Your task to perform on an android device: Go to settings Image 0: 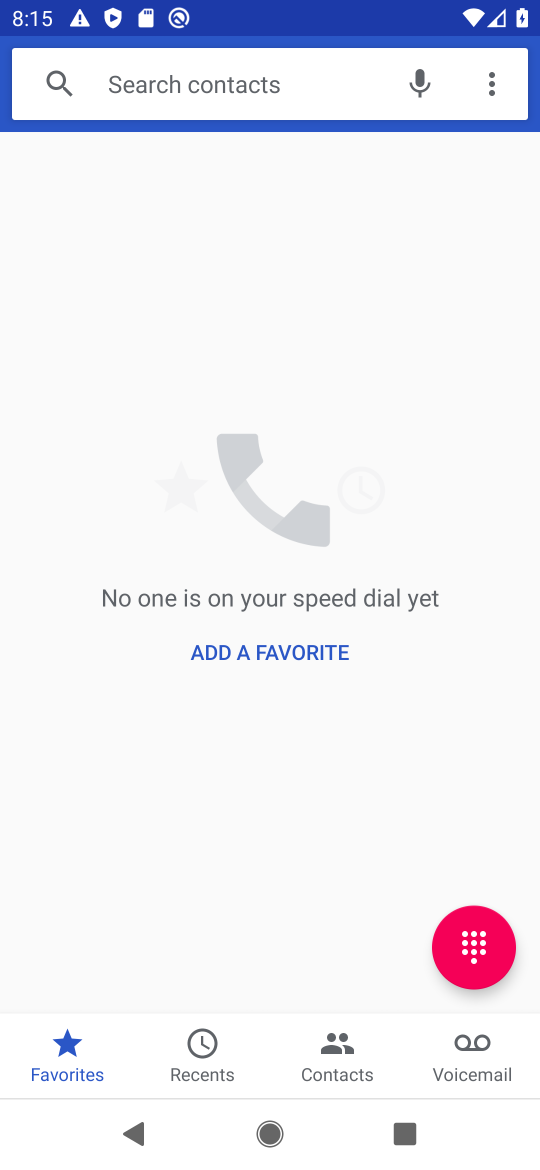
Step 0: press home button
Your task to perform on an android device: Go to settings Image 1: 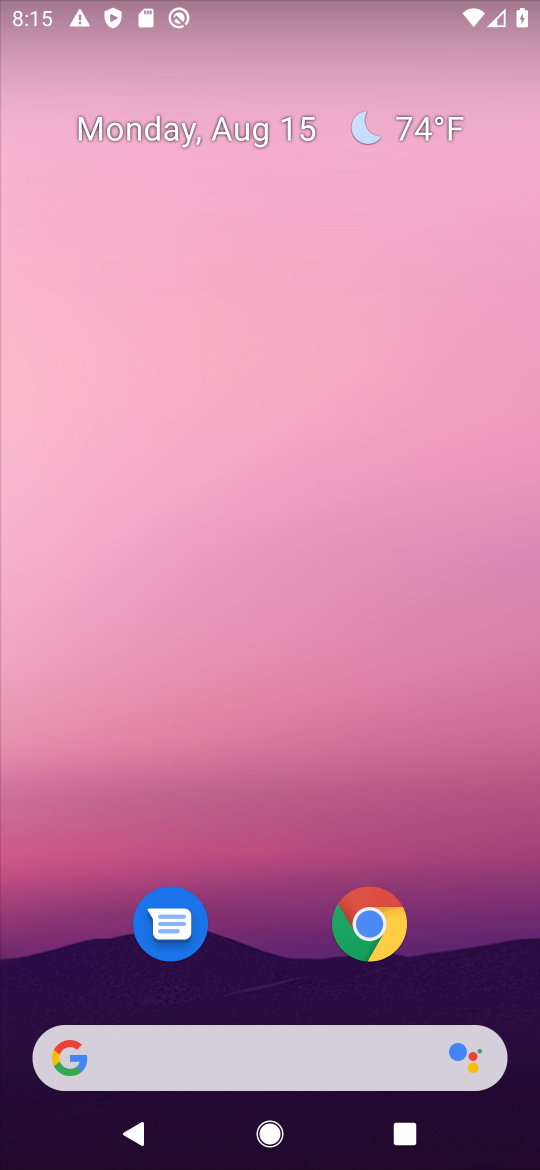
Step 1: drag from (494, 1001) to (451, 321)
Your task to perform on an android device: Go to settings Image 2: 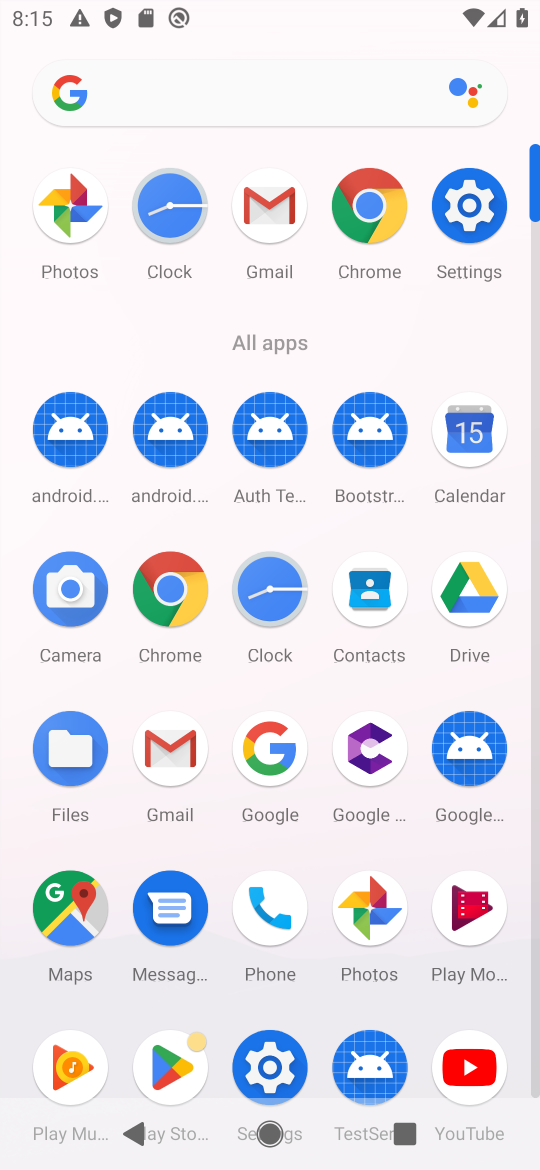
Step 2: click (266, 1066)
Your task to perform on an android device: Go to settings Image 3: 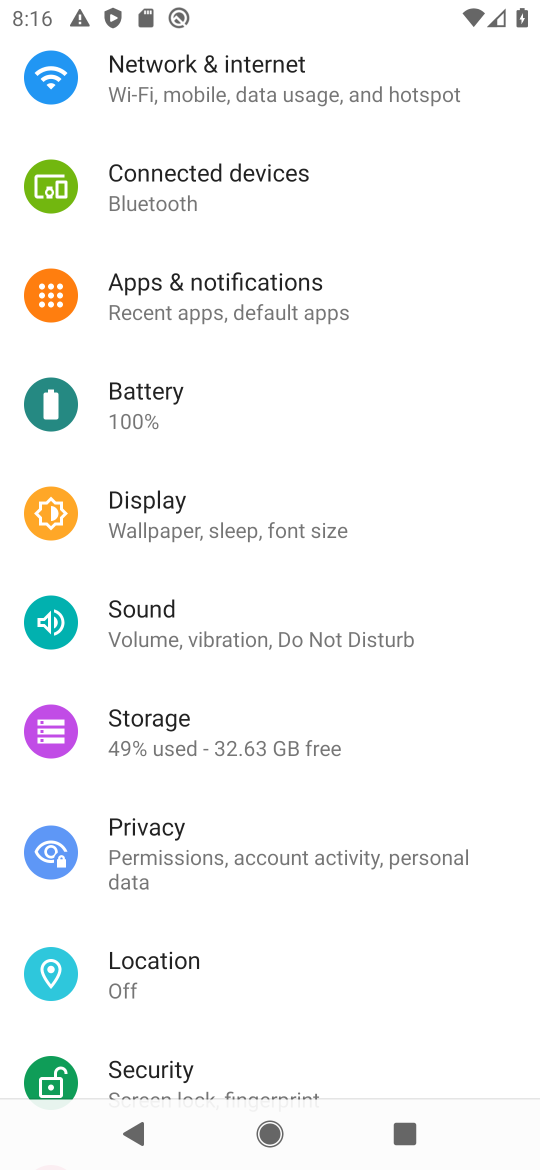
Step 3: task complete